Your task to perform on an android device: choose inbox layout in the gmail app Image 0: 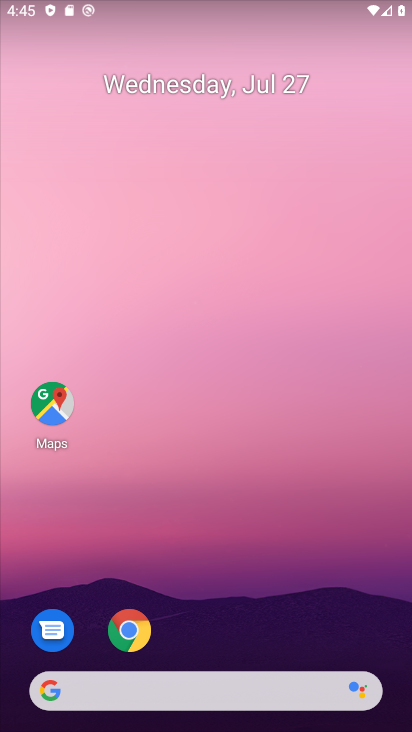
Step 0: drag from (284, 626) to (312, 37)
Your task to perform on an android device: choose inbox layout in the gmail app Image 1: 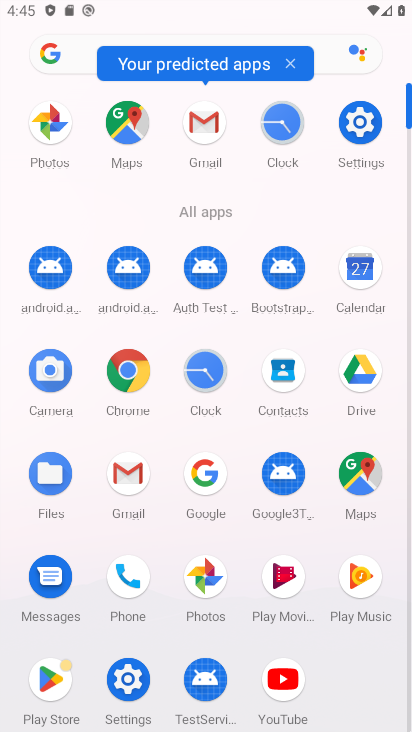
Step 1: click (214, 119)
Your task to perform on an android device: choose inbox layout in the gmail app Image 2: 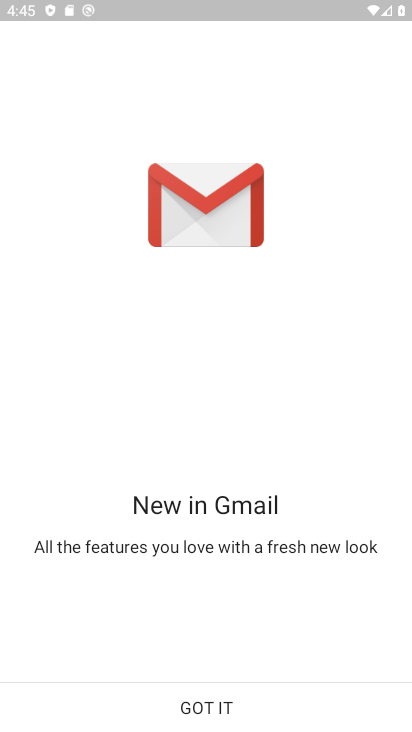
Step 2: click (220, 701)
Your task to perform on an android device: choose inbox layout in the gmail app Image 3: 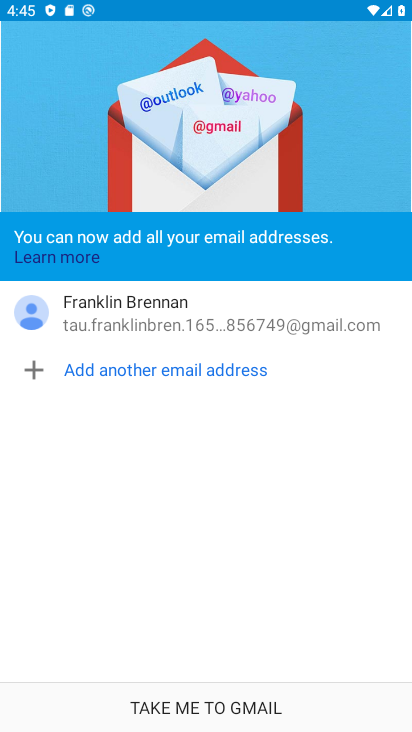
Step 3: click (218, 711)
Your task to perform on an android device: choose inbox layout in the gmail app Image 4: 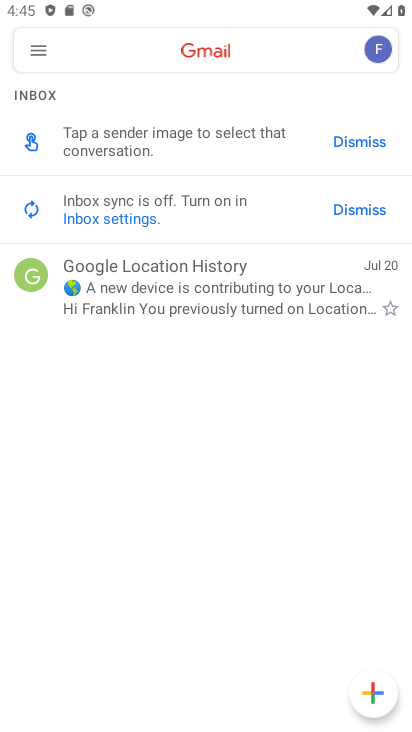
Step 4: click (41, 48)
Your task to perform on an android device: choose inbox layout in the gmail app Image 5: 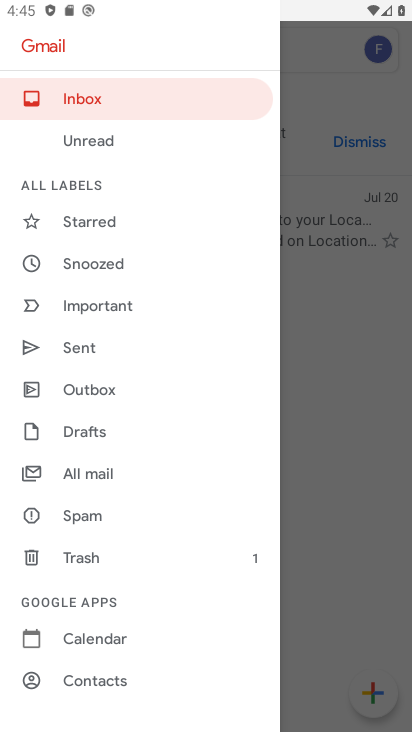
Step 5: drag from (169, 638) to (147, 198)
Your task to perform on an android device: choose inbox layout in the gmail app Image 6: 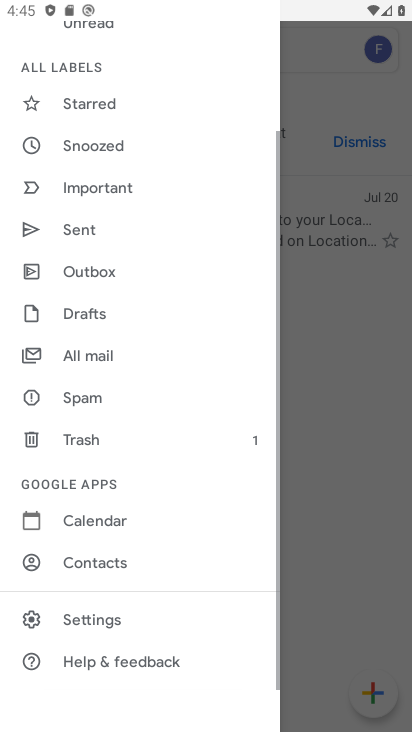
Step 6: click (141, 622)
Your task to perform on an android device: choose inbox layout in the gmail app Image 7: 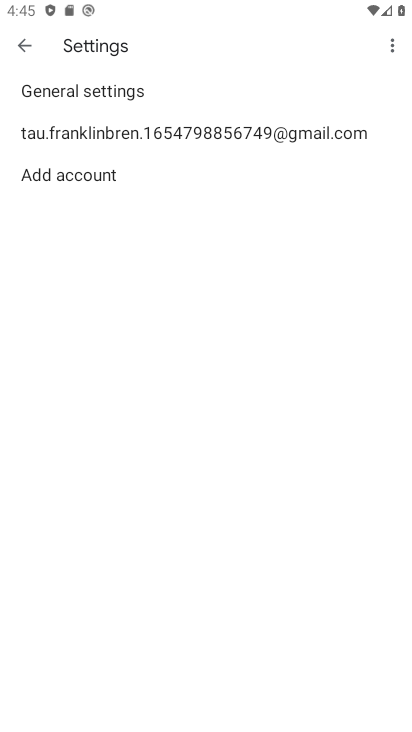
Step 7: click (291, 142)
Your task to perform on an android device: choose inbox layout in the gmail app Image 8: 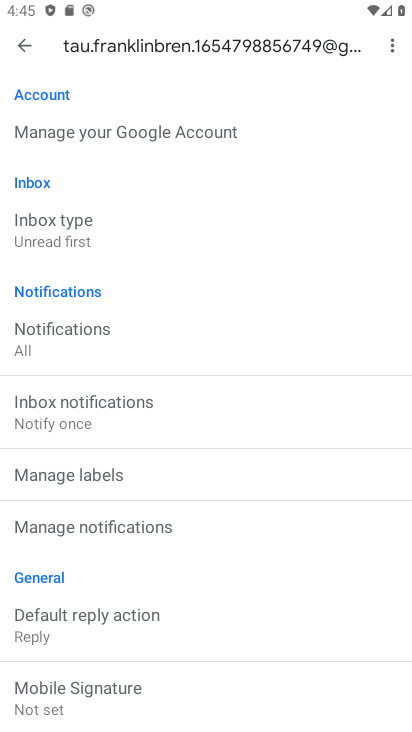
Step 8: click (203, 222)
Your task to perform on an android device: choose inbox layout in the gmail app Image 9: 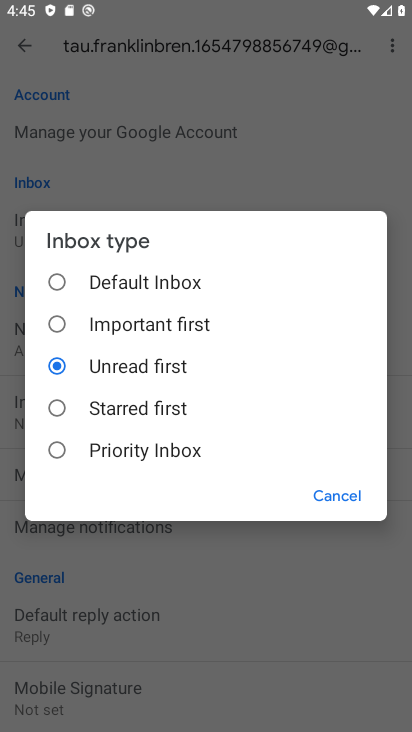
Step 9: click (193, 310)
Your task to perform on an android device: choose inbox layout in the gmail app Image 10: 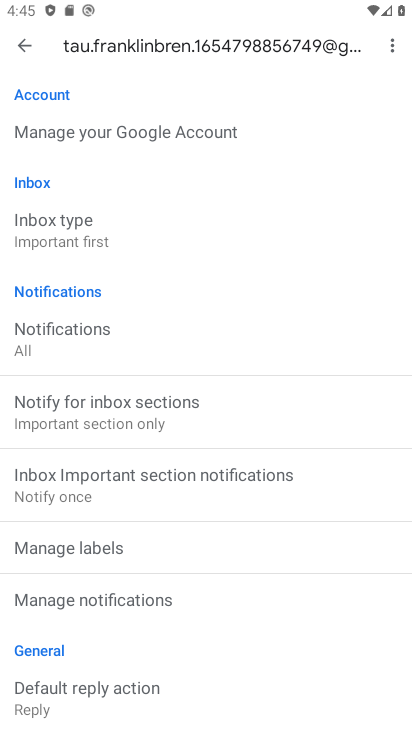
Step 10: task complete